Your task to perform on an android device: add a contact Image 0: 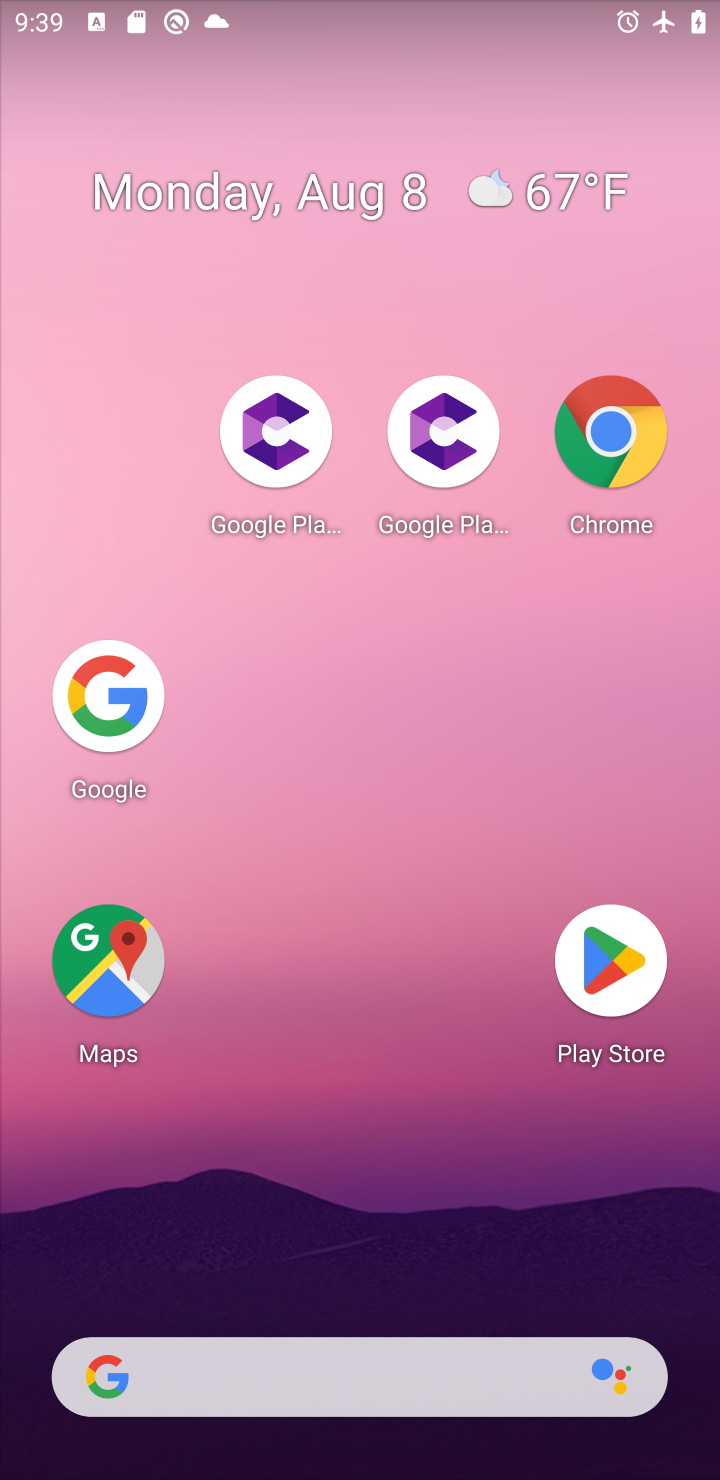
Step 0: drag from (268, 1318) to (375, 206)
Your task to perform on an android device: add a contact Image 1: 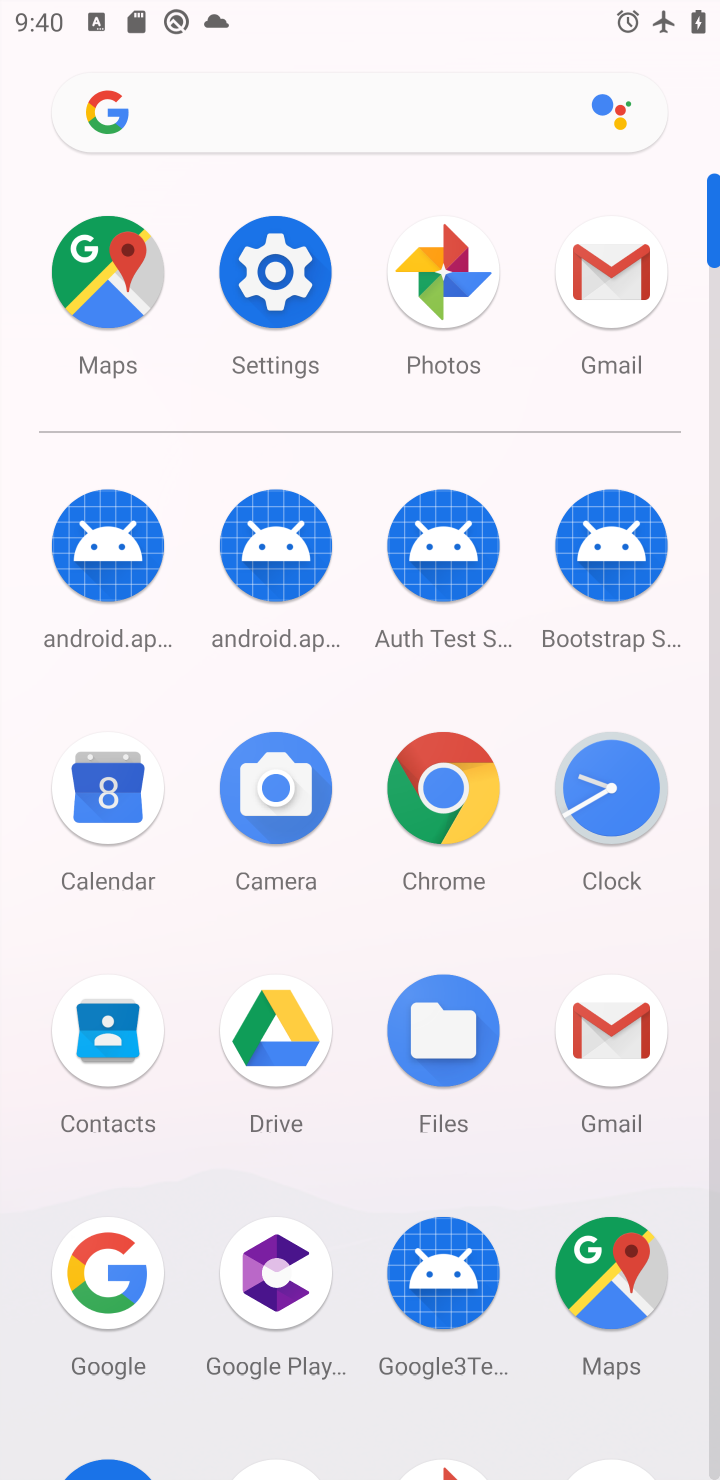
Step 1: click (128, 1048)
Your task to perform on an android device: add a contact Image 2: 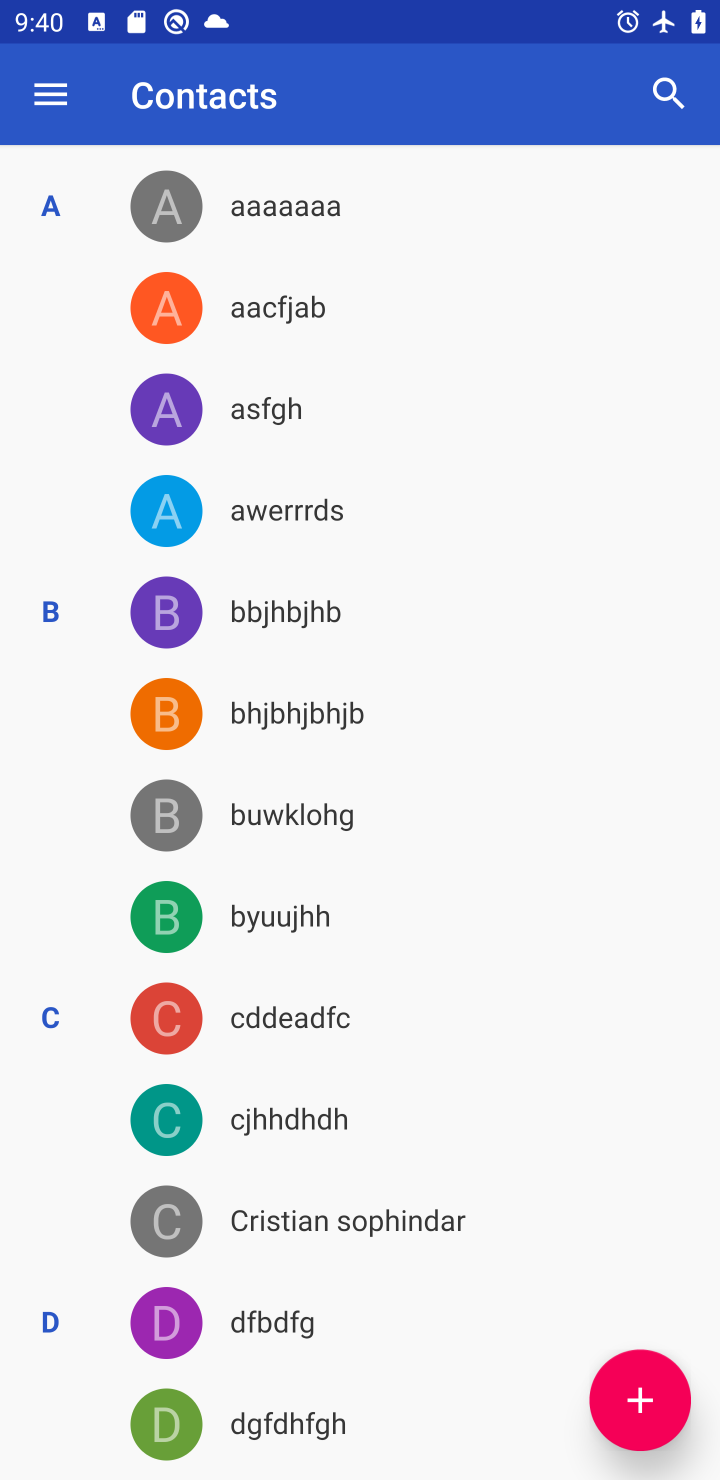
Step 2: click (637, 1366)
Your task to perform on an android device: add a contact Image 3: 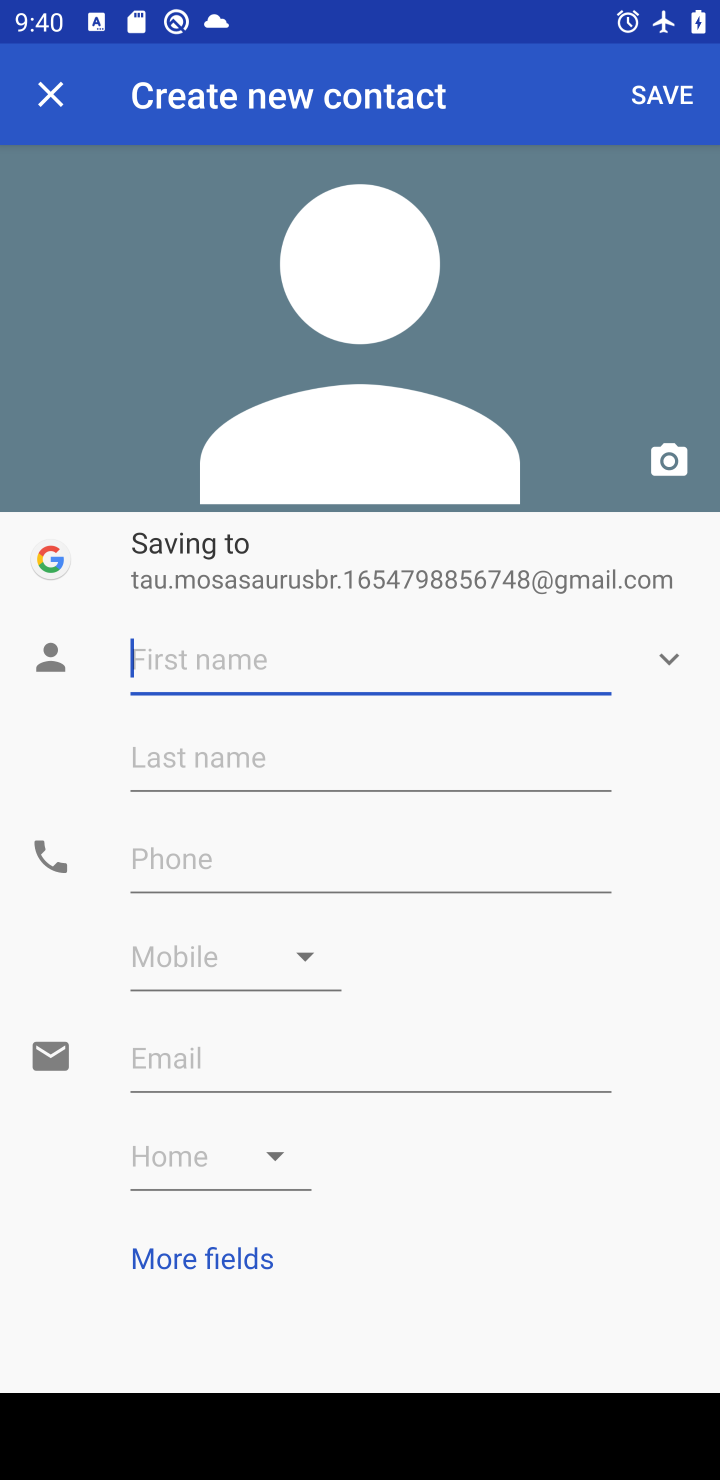
Step 3: type "mnbn"
Your task to perform on an android device: add a contact Image 4: 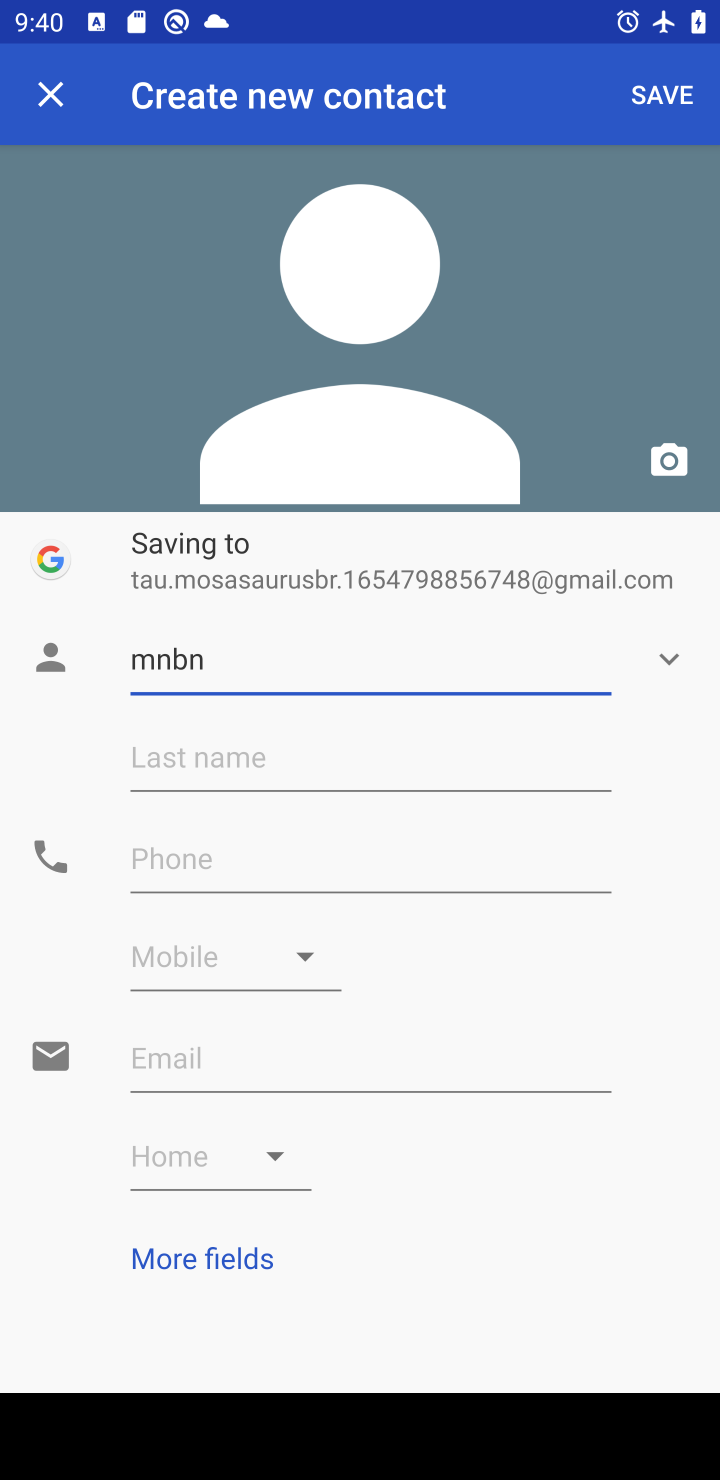
Step 4: click (344, 870)
Your task to perform on an android device: add a contact Image 5: 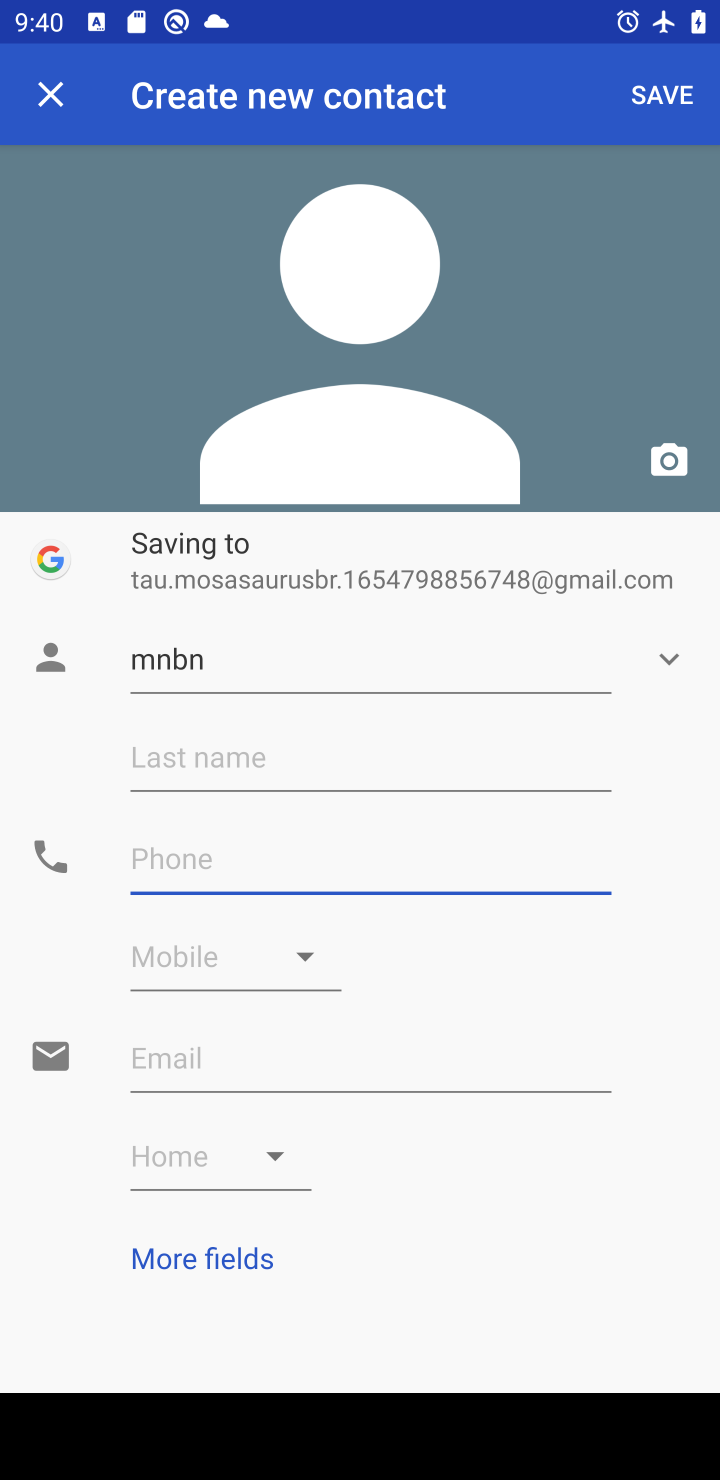
Step 5: type "345678987"
Your task to perform on an android device: add a contact Image 6: 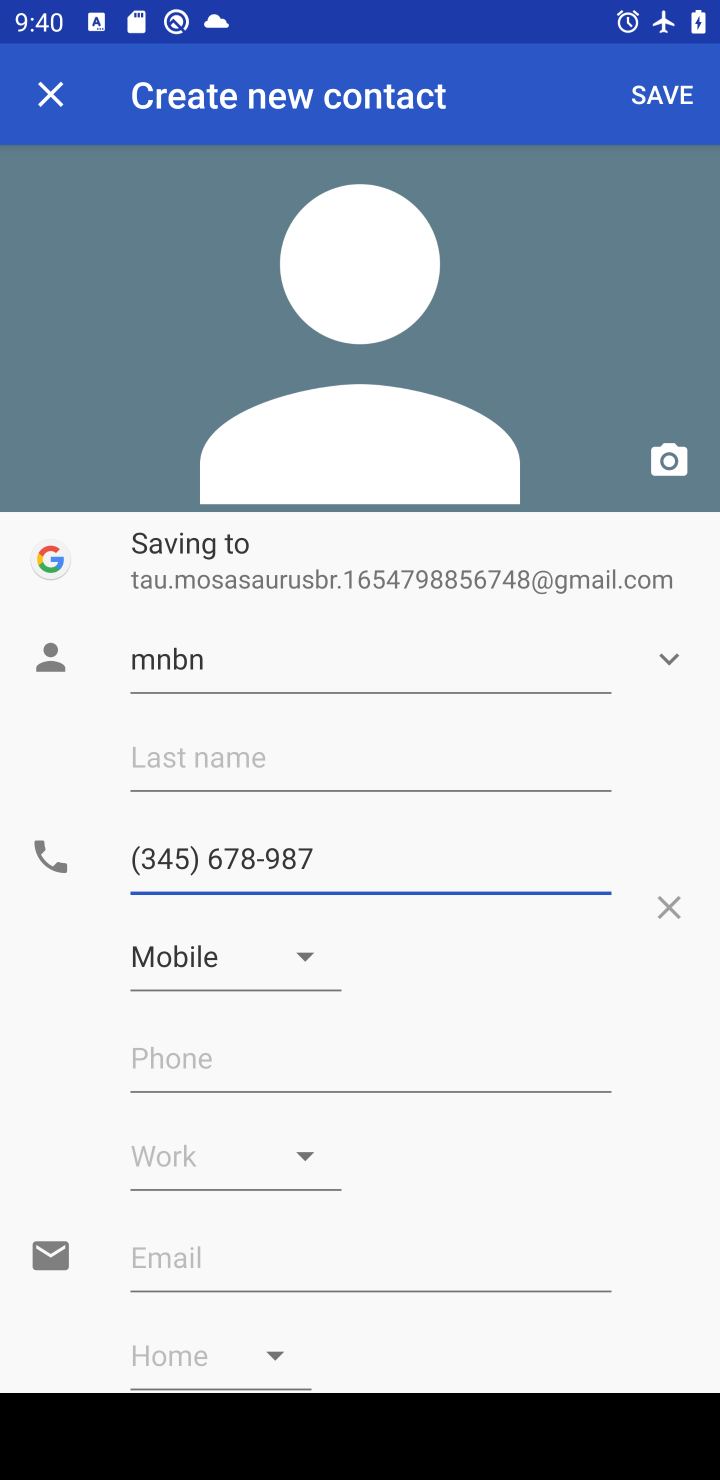
Step 6: click (640, 103)
Your task to perform on an android device: add a contact Image 7: 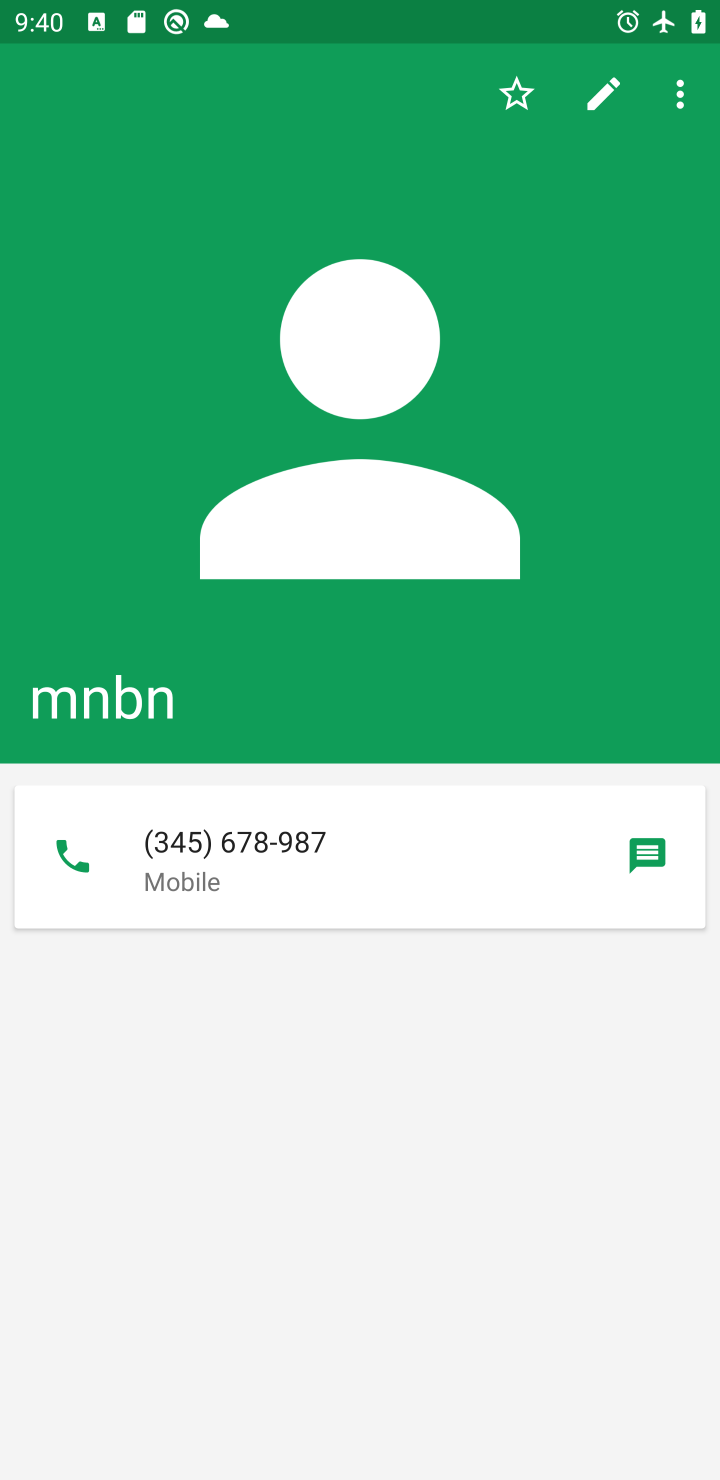
Step 7: task complete